Your task to perform on an android device: Open the calendar app, open the side menu, and click the "Day" option Image 0: 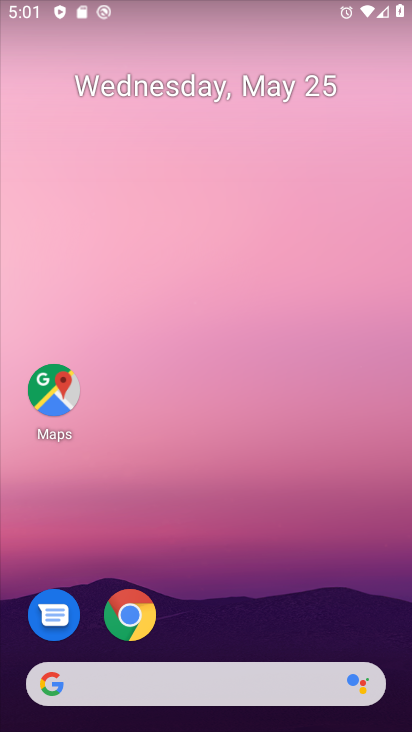
Step 0: press home button
Your task to perform on an android device: Open the calendar app, open the side menu, and click the "Day" option Image 1: 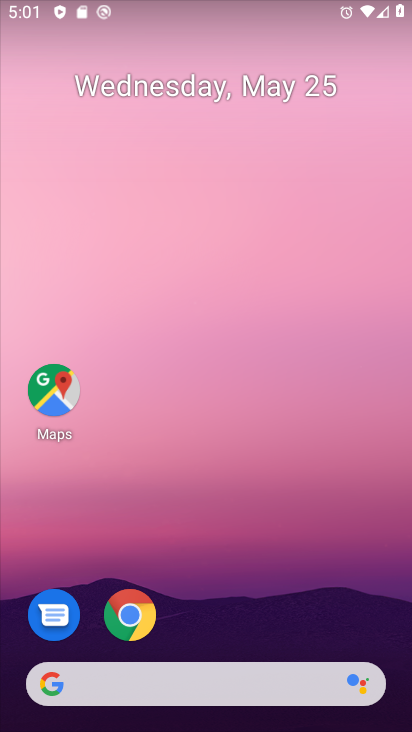
Step 1: drag from (234, 582) to (296, 125)
Your task to perform on an android device: Open the calendar app, open the side menu, and click the "Day" option Image 2: 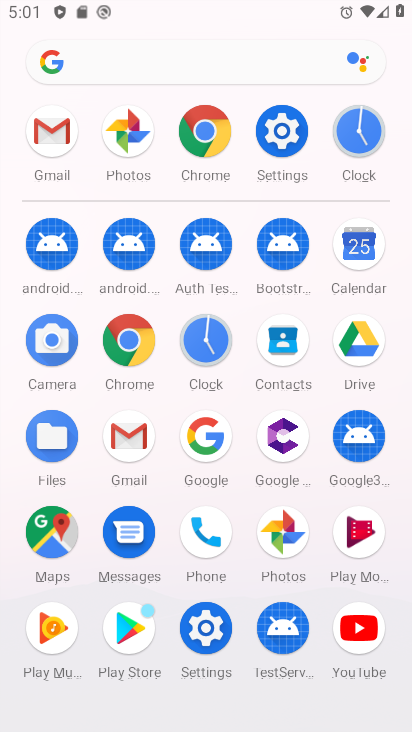
Step 2: click (351, 241)
Your task to perform on an android device: Open the calendar app, open the side menu, and click the "Day" option Image 3: 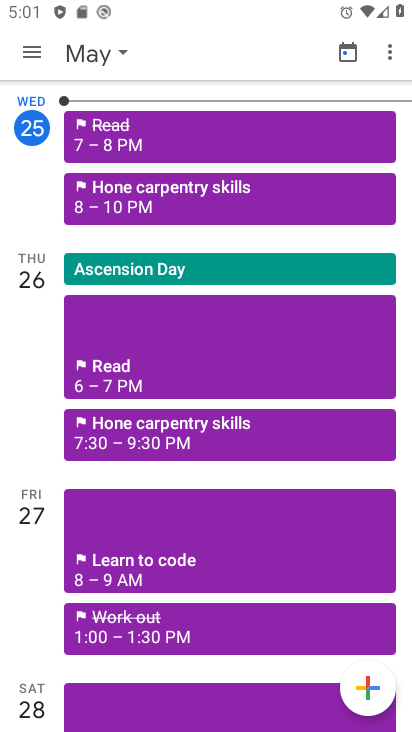
Step 3: click (30, 54)
Your task to perform on an android device: Open the calendar app, open the side menu, and click the "Day" option Image 4: 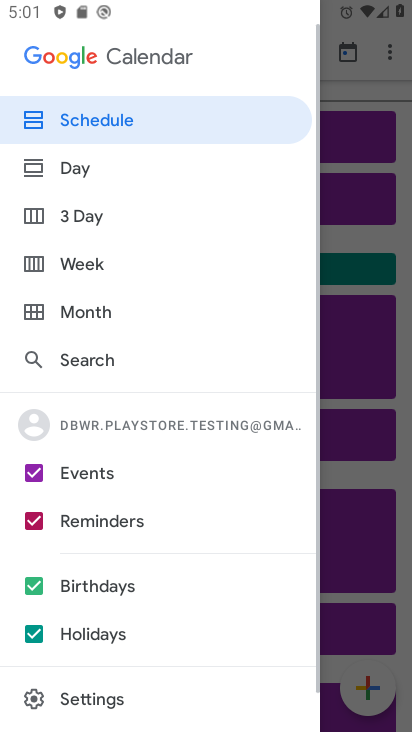
Step 4: click (77, 164)
Your task to perform on an android device: Open the calendar app, open the side menu, and click the "Day" option Image 5: 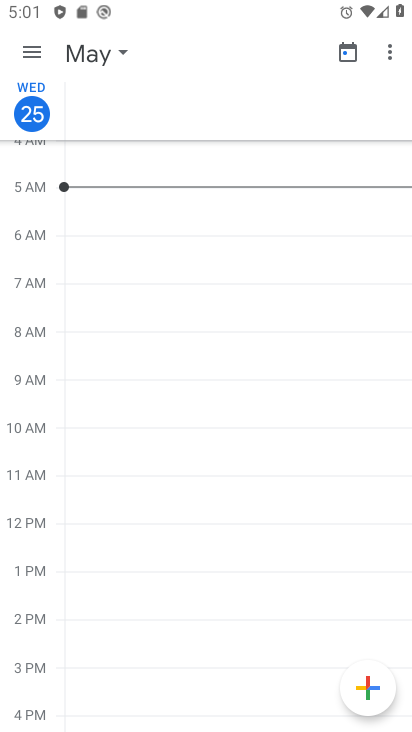
Step 5: task complete